Your task to perform on an android device: turn pop-ups on in chrome Image 0: 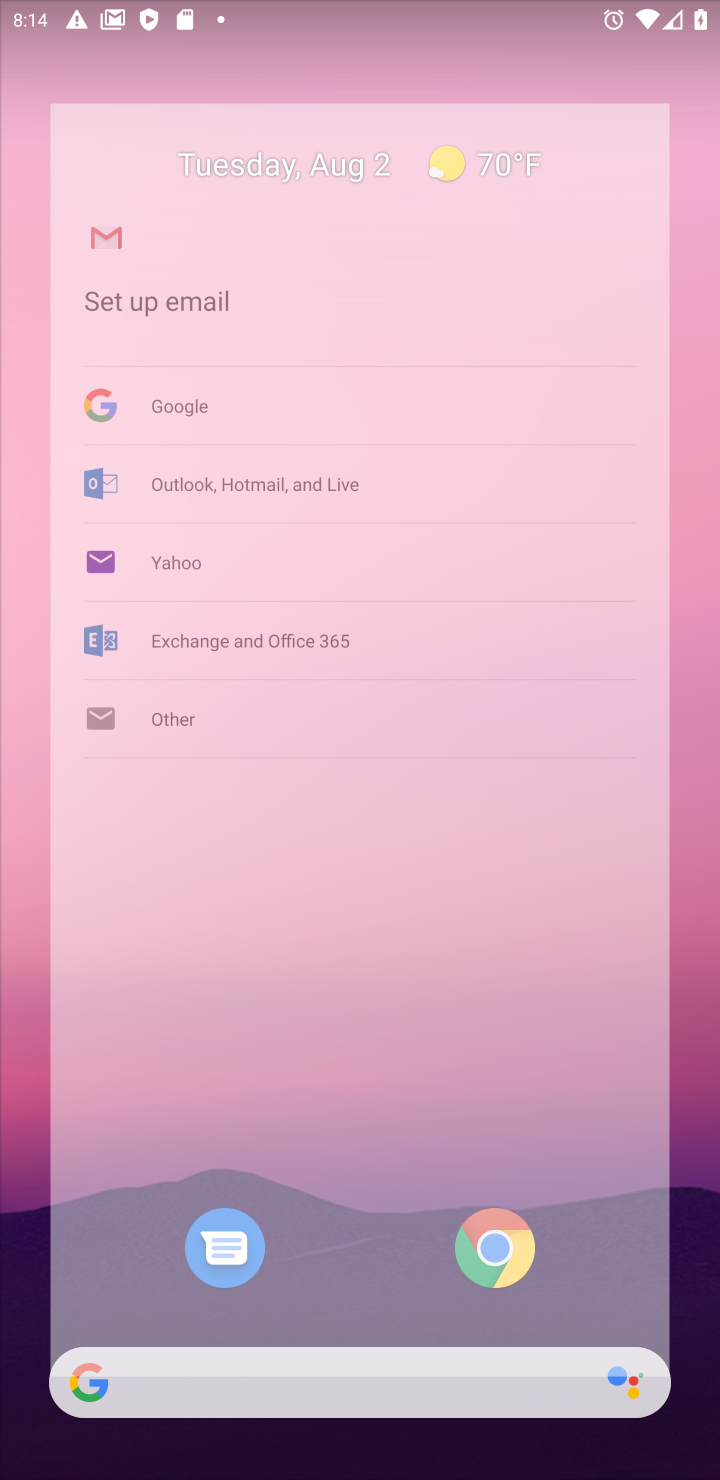
Step 0: press home button
Your task to perform on an android device: turn pop-ups on in chrome Image 1: 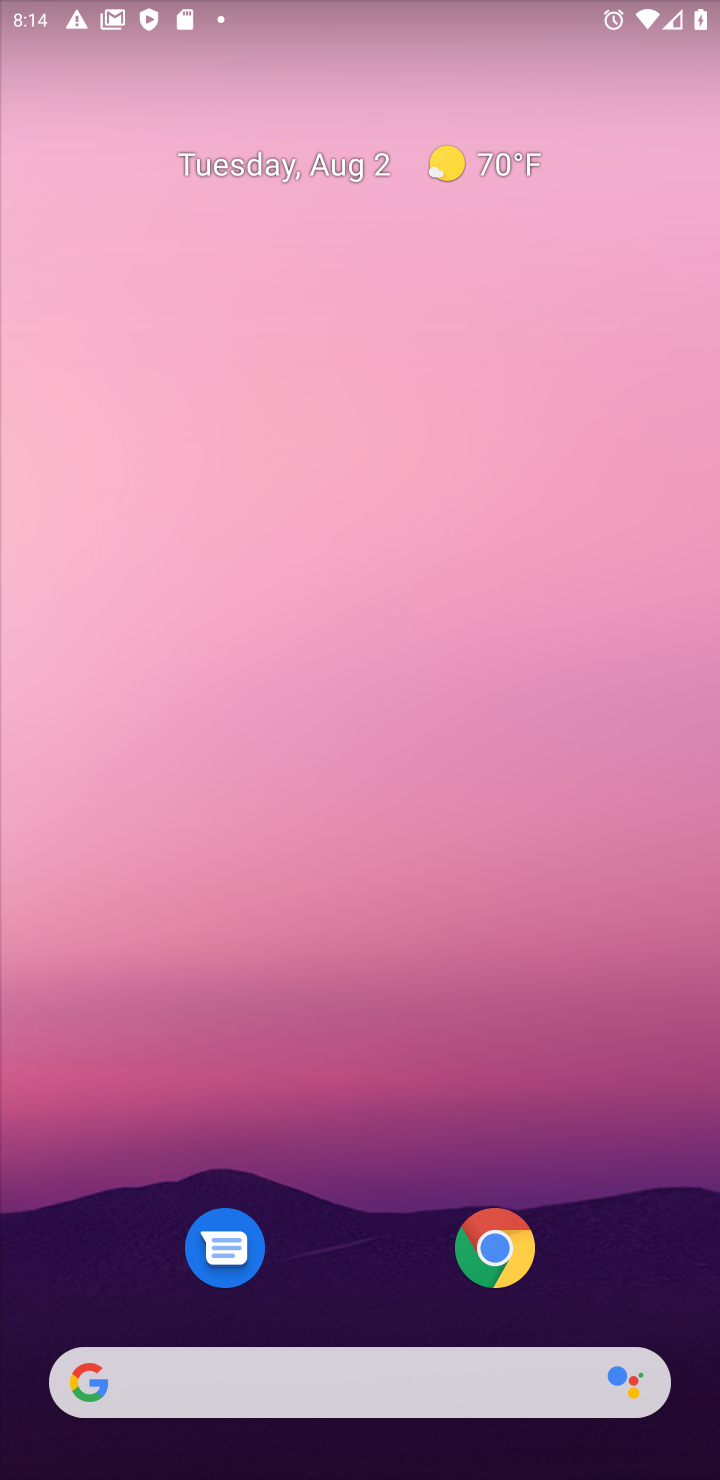
Step 1: click (480, 1256)
Your task to perform on an android device: turn pop-ups on in chrome Image 2: 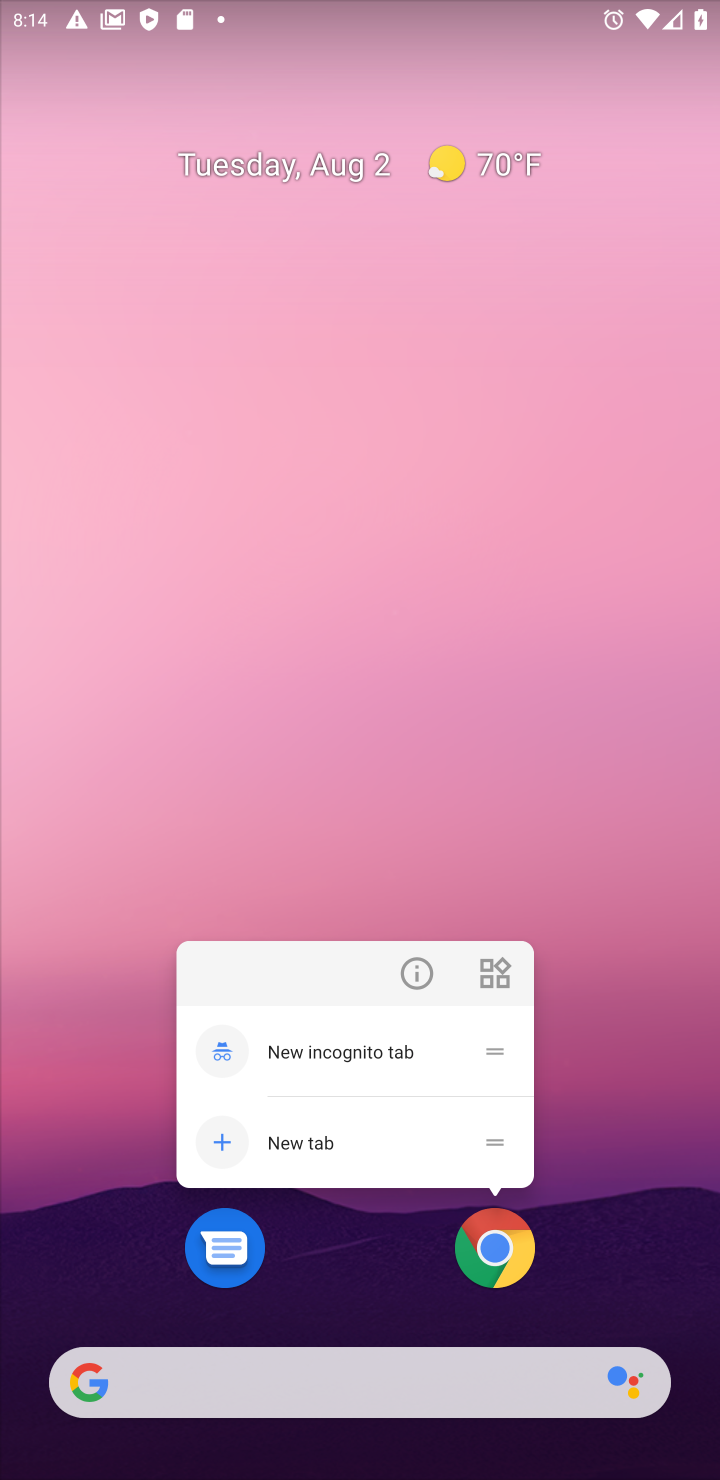
Step 2: click (492, 1246)
Your task to perform on an android device: turn pop-ups on in chrome Image 3: 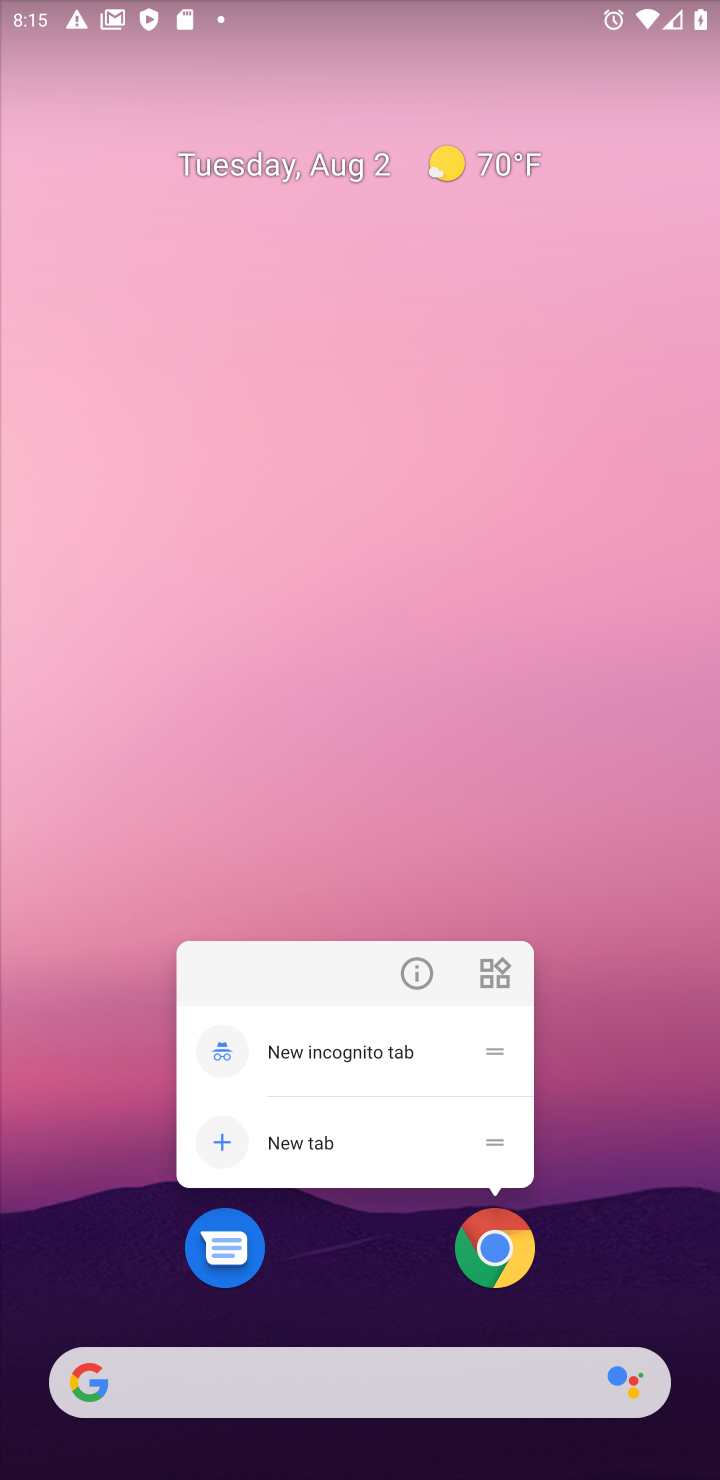
Step 3: click (492, 1246)
Your task to perform on an android device: turn pop-ups on in chrome Image 4: 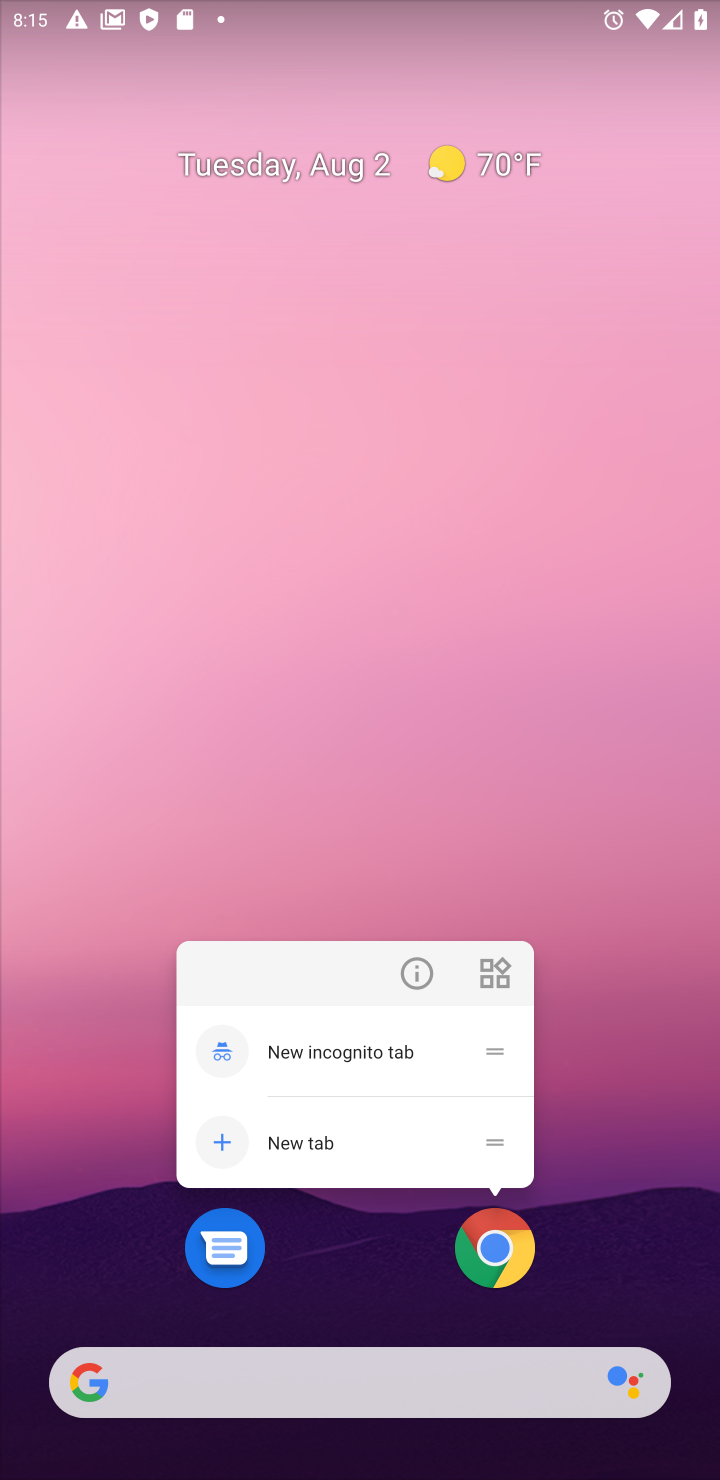
Step 4: click (497, 1246)
Your task to perform on an android device: turn pop-ups on in chrome Image 5: 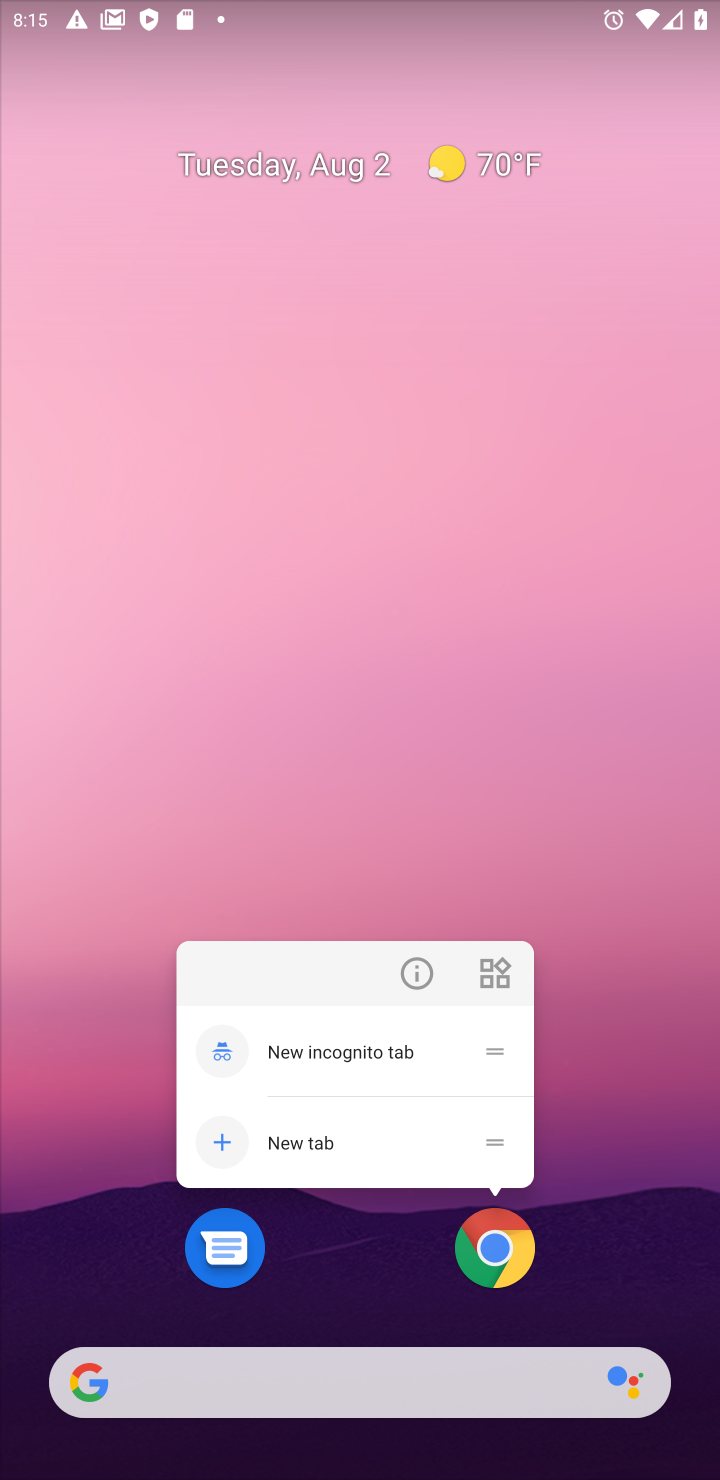
Step 5: drag from (670, 1077) to (618, 65)
Your task to perform on an android device: turn pop-ups on in chrome Image 6: 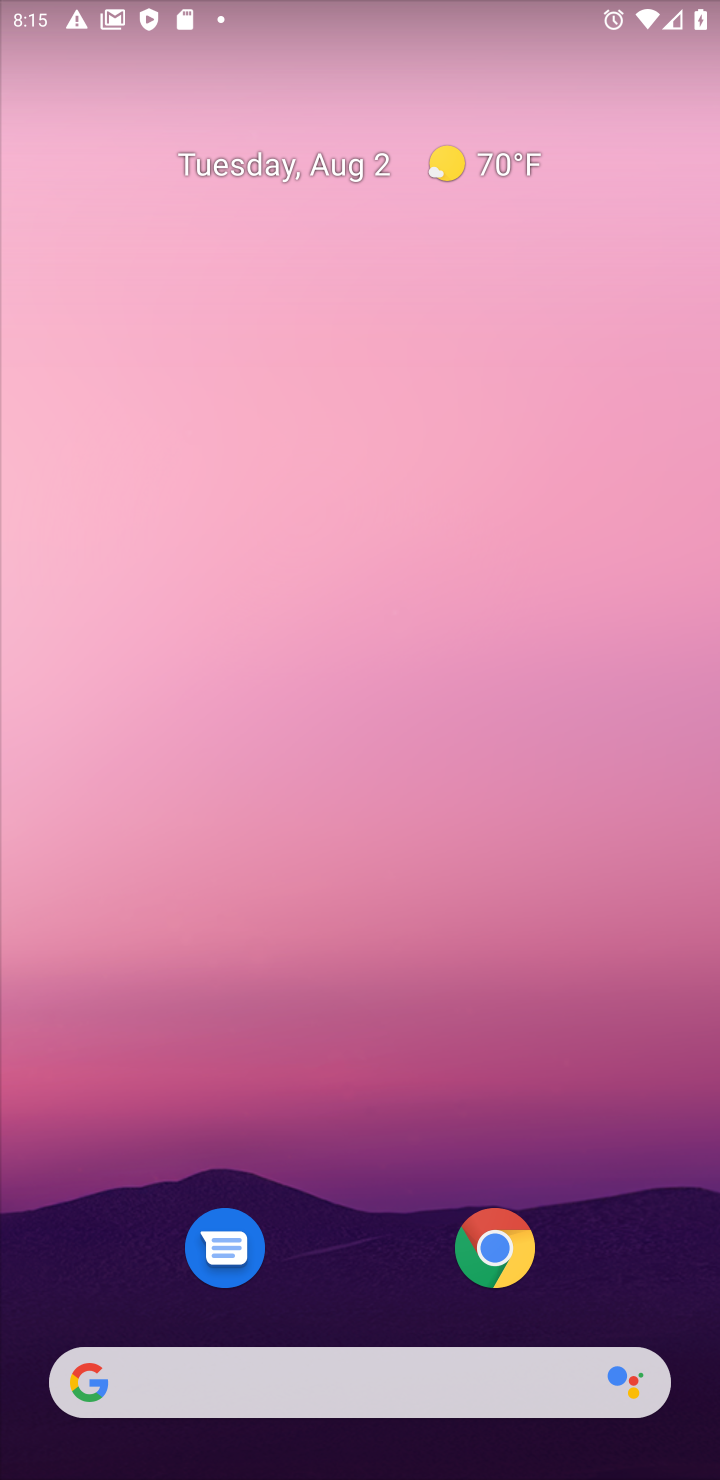
Step 6: drag from (595, 1235) to (584, 113)
Your task to perform on an android device: turn pop-ups on in chrome Image 7: 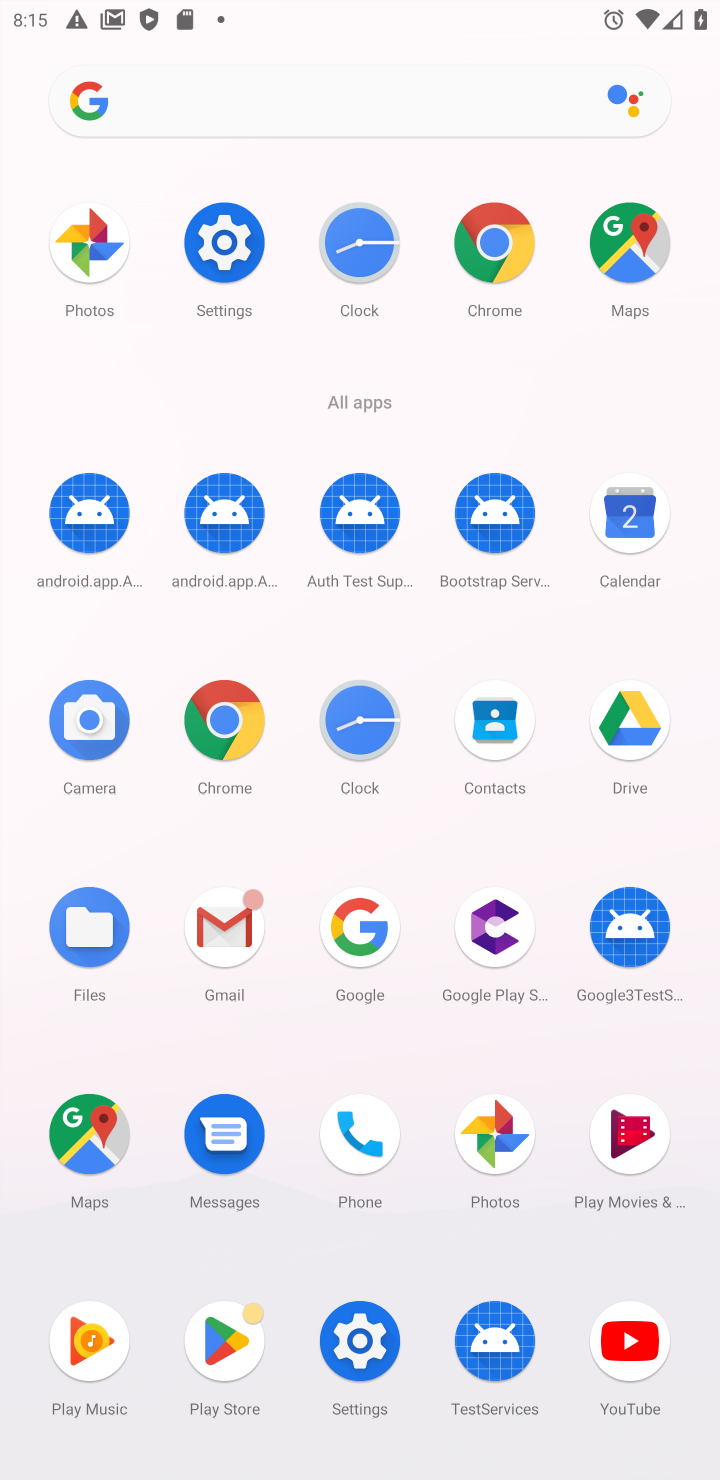
Step 7: click (225, 707)
Your task to perform on an android device: turn pop-ups on in chrome Image 8: 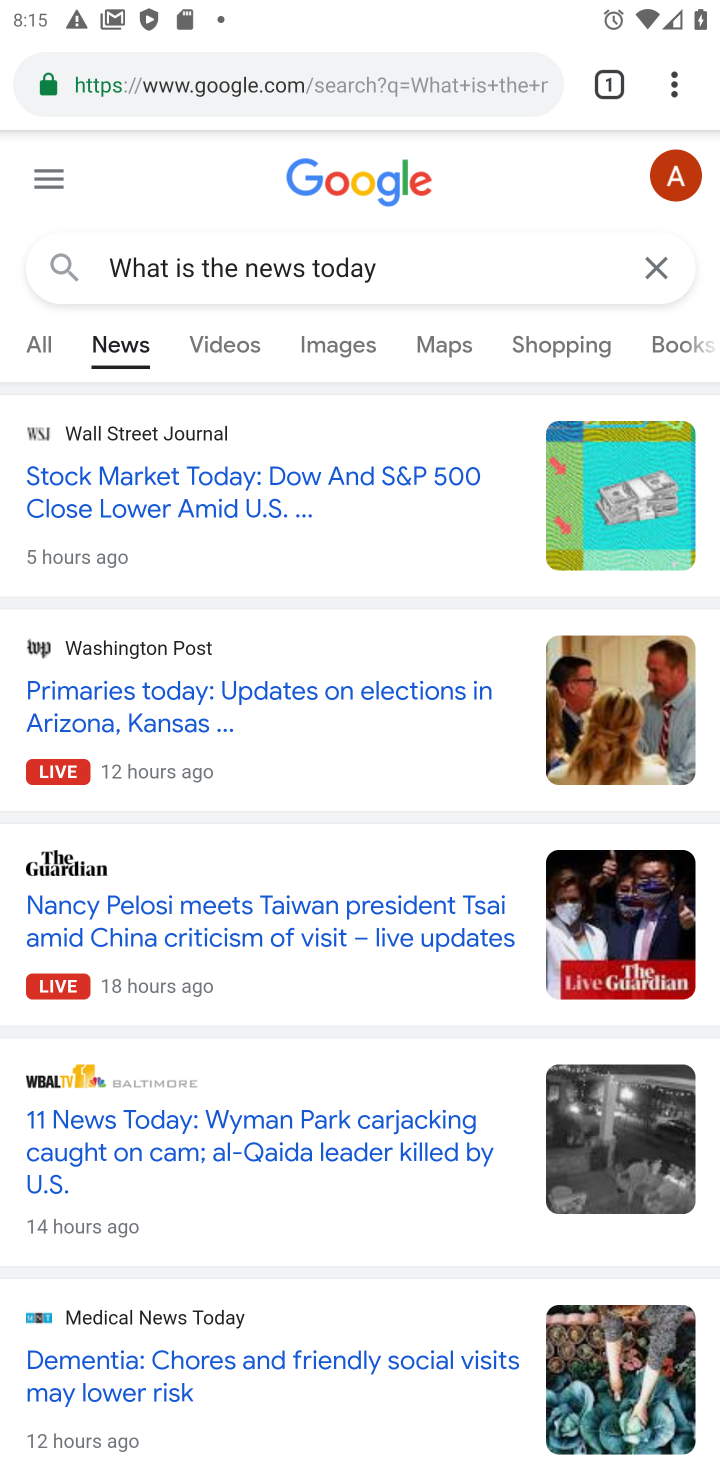
Step 8: drag from (672, 78) to (366, 1021)
Your task to perform on an android device: turn pop-ups on in chrome Image 9: 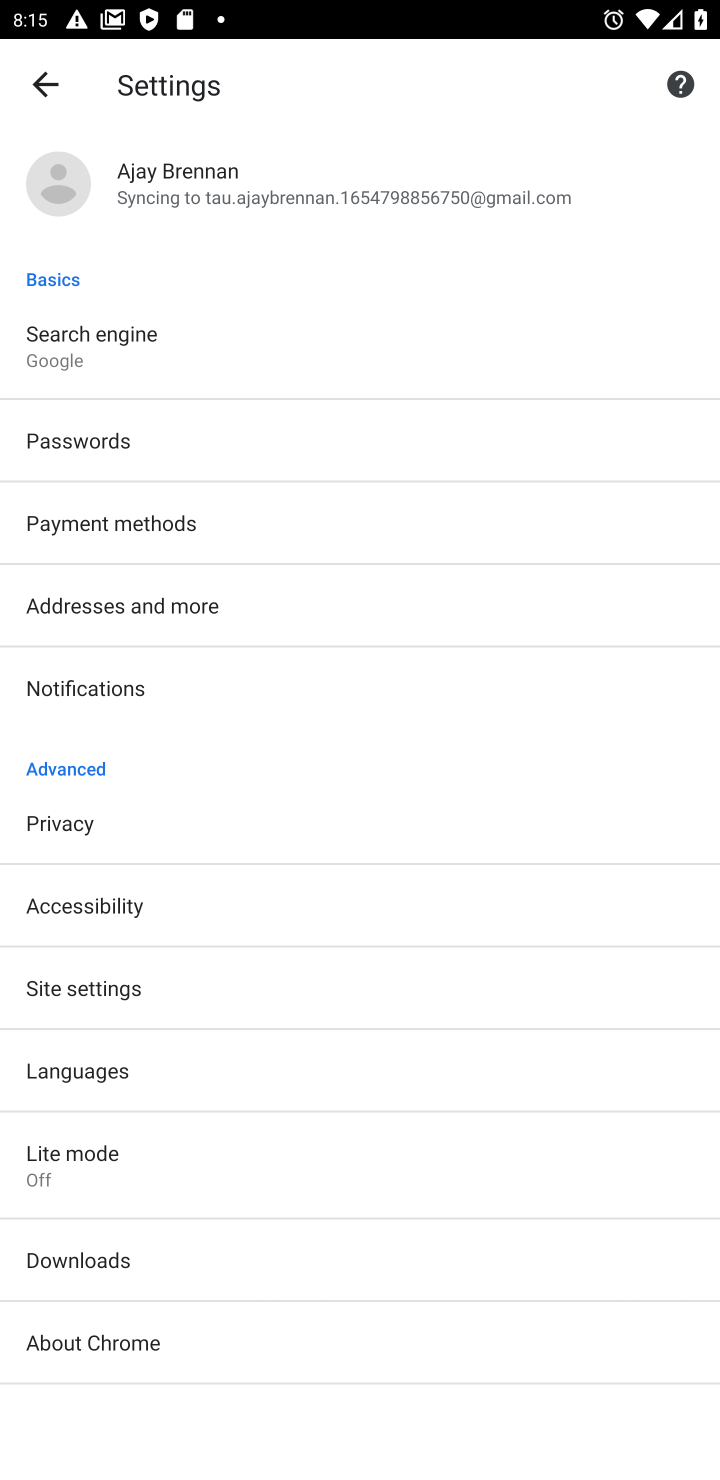
Step 9: drag from (368, 1304) to (313, 591)
Your task to perform on an android device: turn pop-ups on in chrome Image 10: 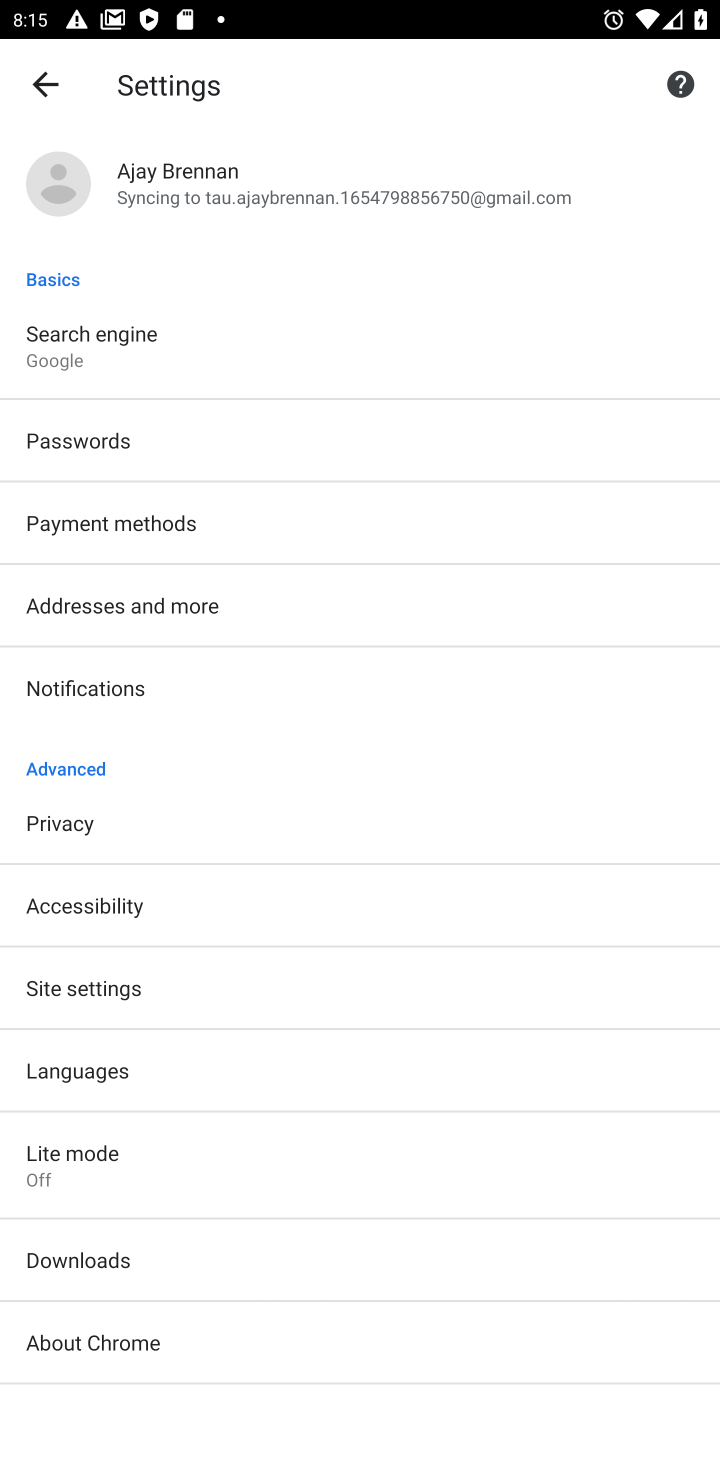
Step 10: drag from (179, 1262) to (188, 755)
Your task to perform on an android device: turn pop-ups on in chrome Image 11: 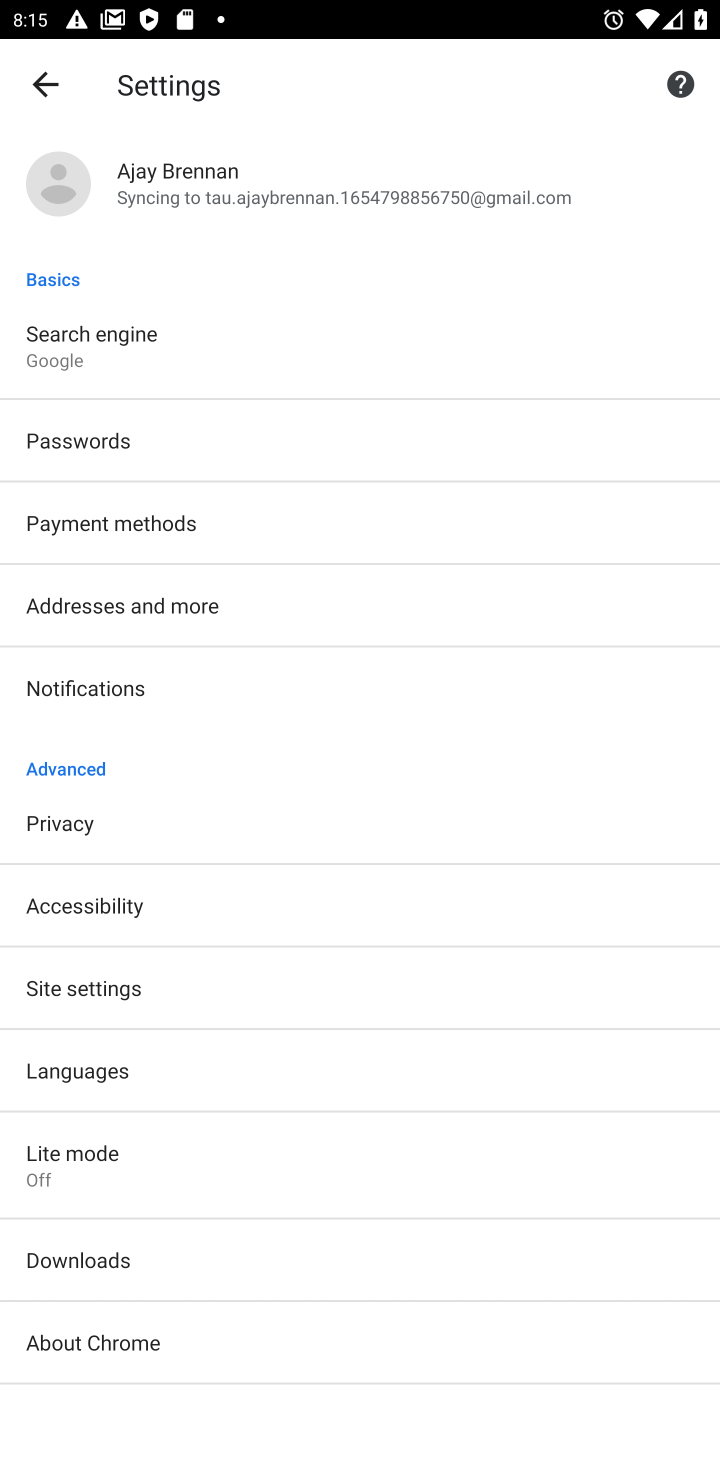
Step 11: click (62, 987)
Your task to perform on an android device: turn pop-ups on in chrome Image 12: 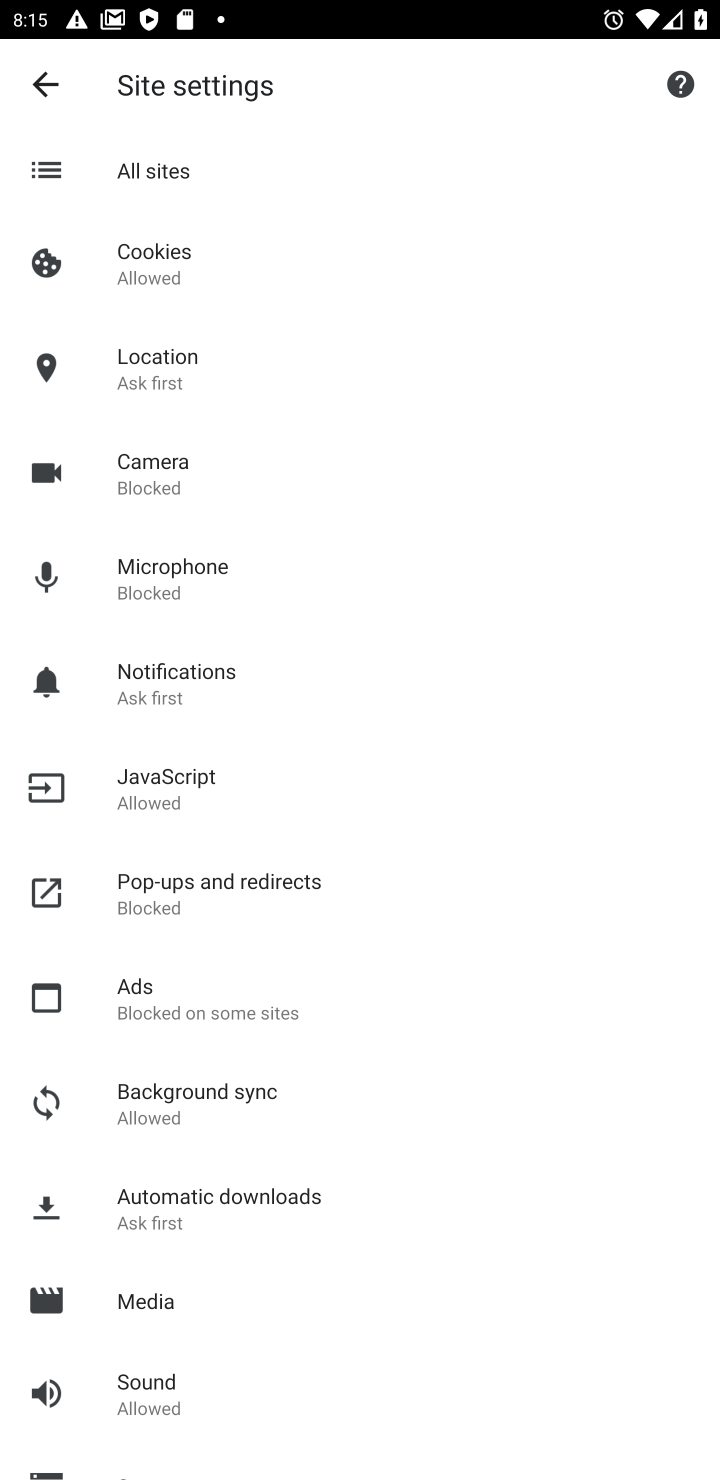
Step 12: click (179, 893)
Your task to perform on an android device: turn pop-ups on in chrome Image 13: 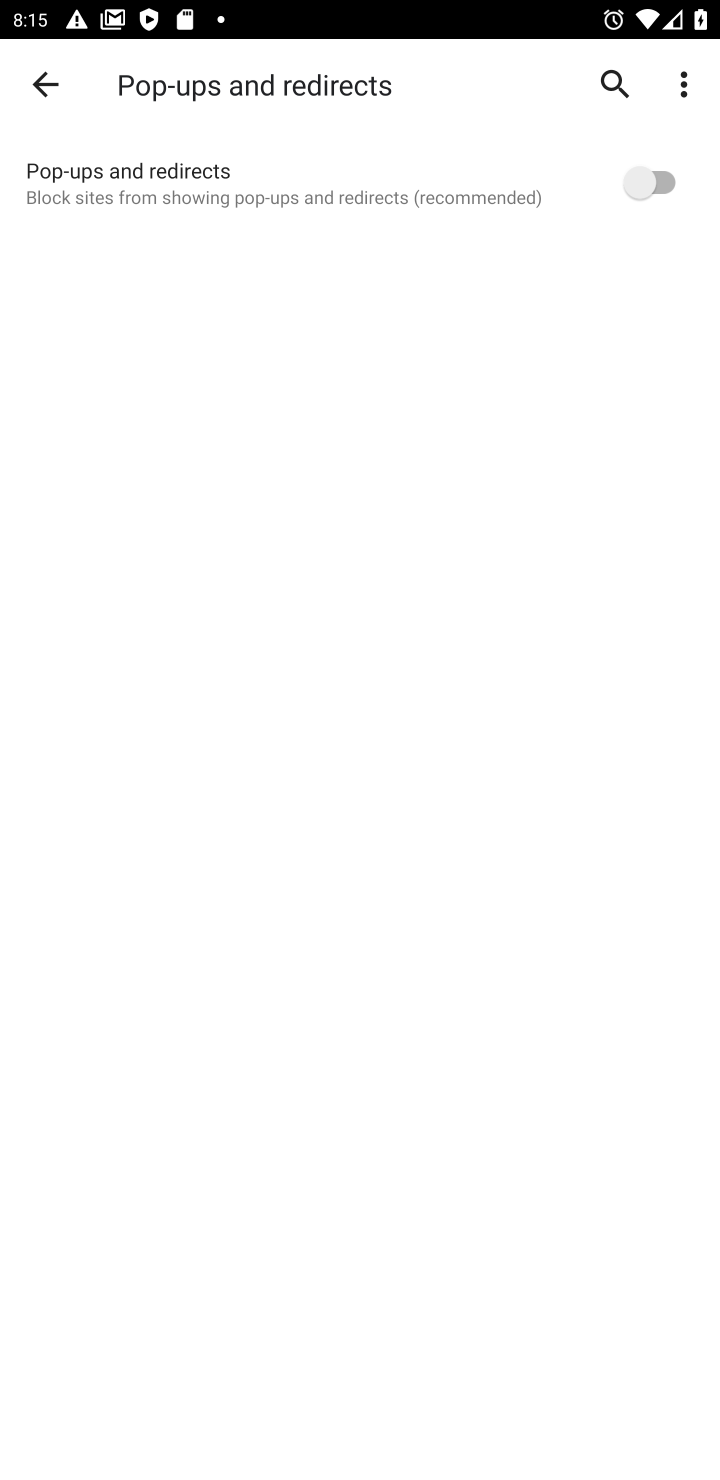
Step 13: click (610, 170)
Your task to perform on an android device: turn pop-ups on in chrome Image 14: 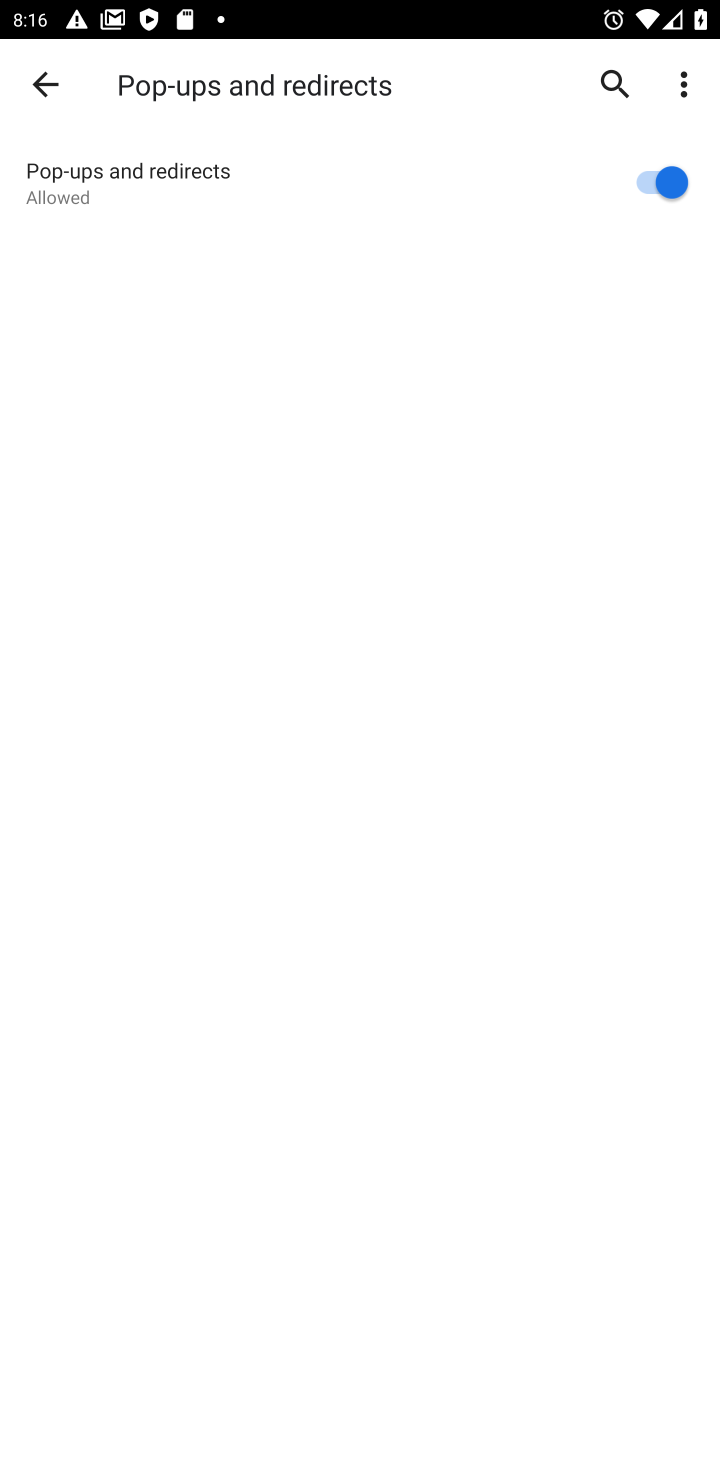
Step 14: task complete